Your task to perform on an android device: What is the news today? Image 0: 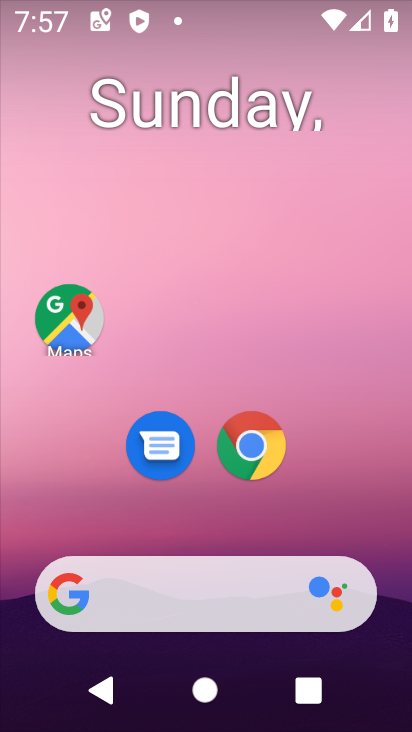
Step 0: click (138, 591)
Your task to perform on an android device: What is the news today? Image 1: 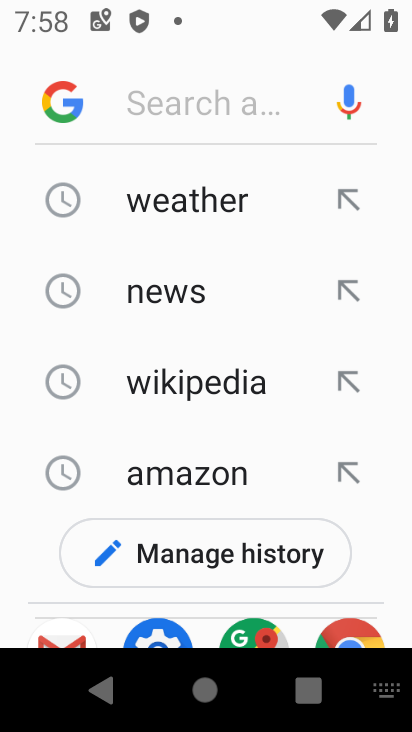
Step 1: click (151, 288)
Your task to perform on an android device: What is the news today? Image 2: 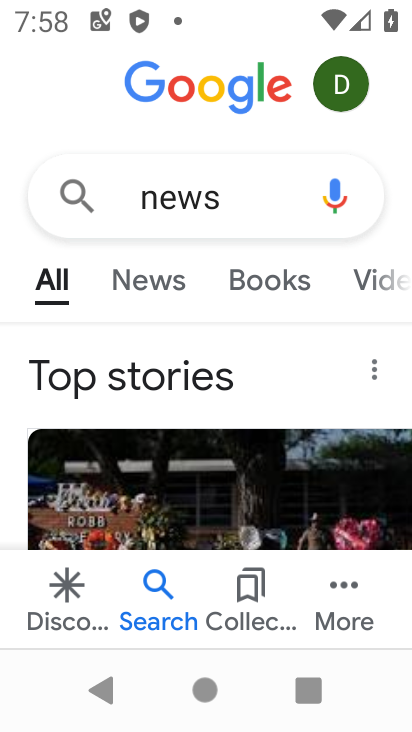
Step 2: task complete